Your task to perform on an android device: change text size in settings app Image 0: 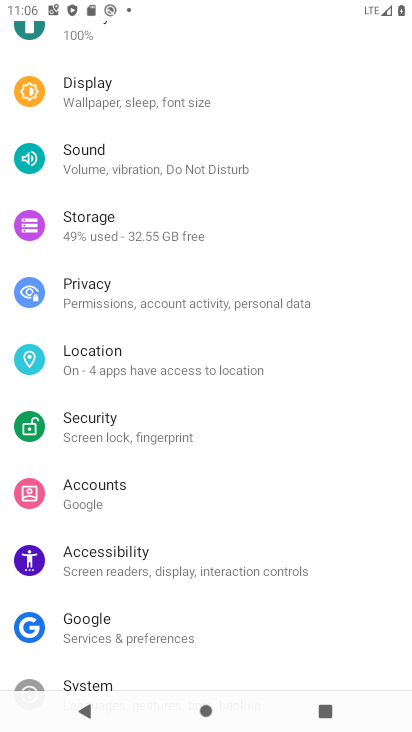
Step 0: click (173, 107)
Your task to perform on an android device: change text size in settings app Image 1: 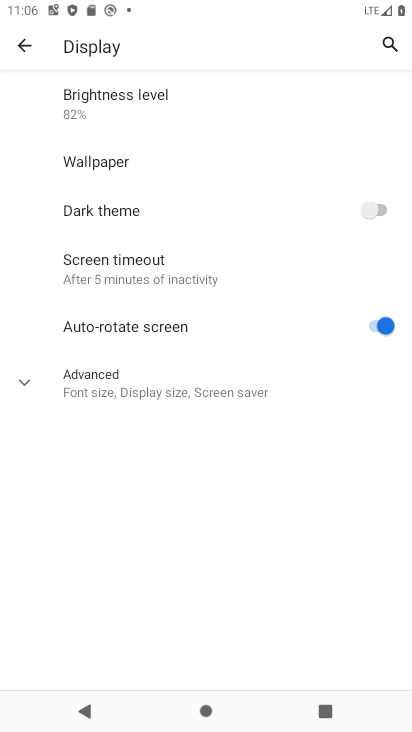
Step 1: click (116, 390)
Your task to perform on an android device: change text size in settings app Image 2: 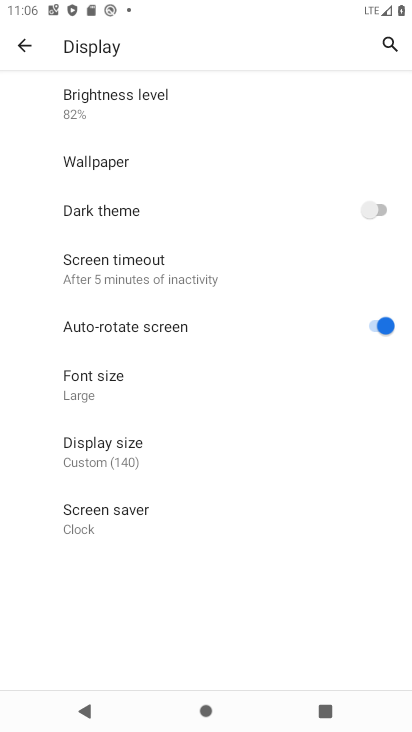
Step 2: click (106, 377)
Your task to perform on an android device: change text size in settings app Image 3: 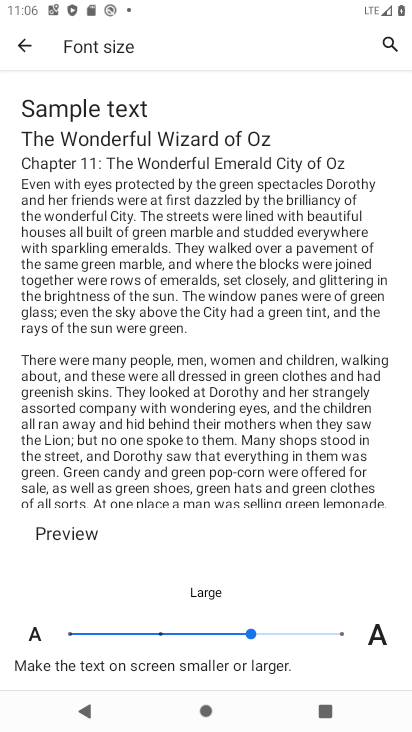
Step 3: click (70, 630)
Your task to perform on an android device: change text size in settings app Image 4: 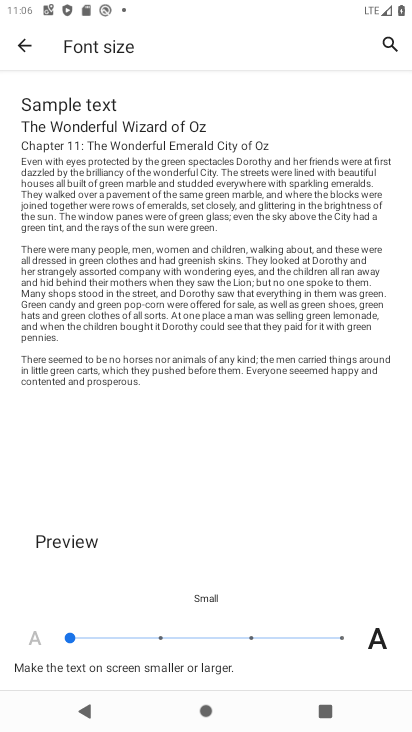
Step 4: task complete